Your task to perform on an android device: Open calendar and show me the first week of next month Image 0: 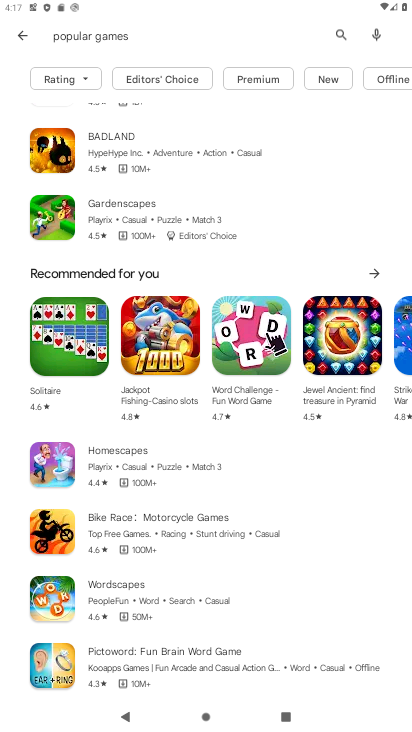
Step 0: press home button
Your task to perform on an android device: Open calendar and show me the first week of next month Image 1: 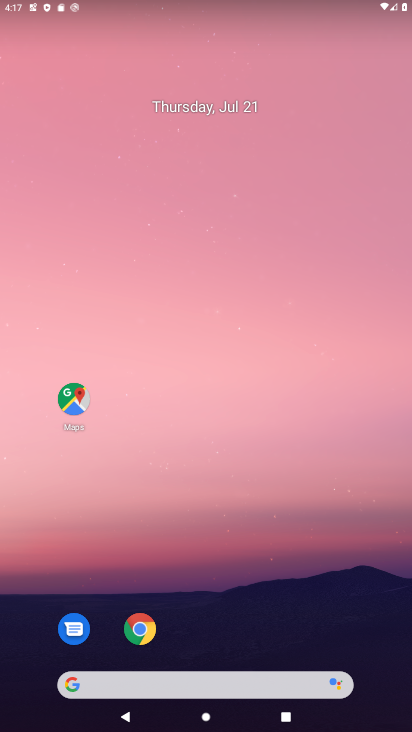
Step 1: drag from (242, 598) to (266, 58)
Your task to perform on an android device: Open calendar and show me the first week of next month Image 2: 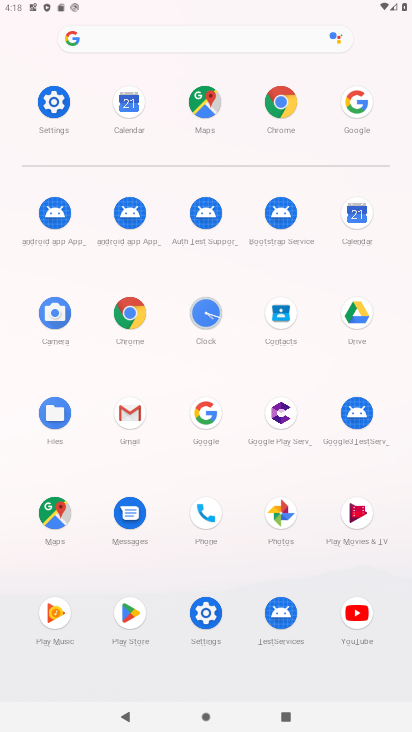
Step 2: click (356, 218)
Your task to perform on an android device: Open calendar and show me the first week of next month Image 3: 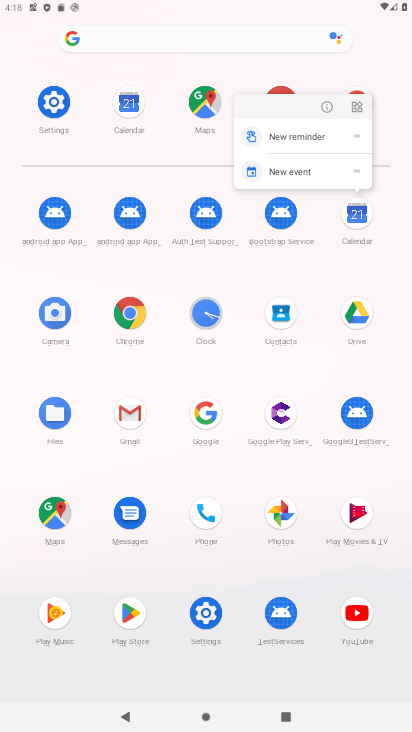
Step 3: click (356, 217)
Your task to perform on an android device: Open calendar and show me the first week of next month Image 4: 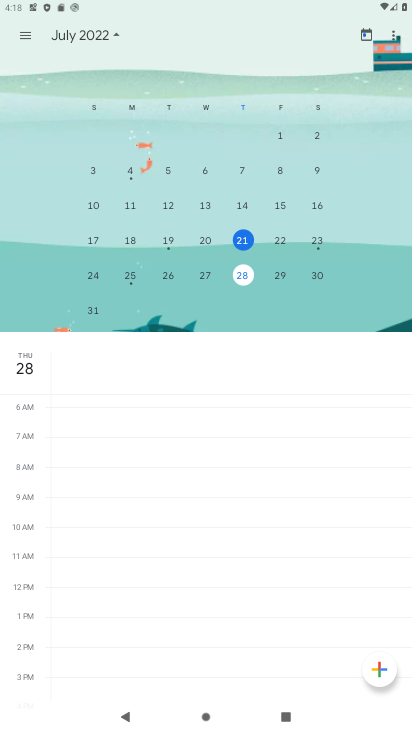
Step 4: drag from (321, 220) to (2, 125)
Your task to perform on an android device: Open calendar and show me the first week of next month Image 5: 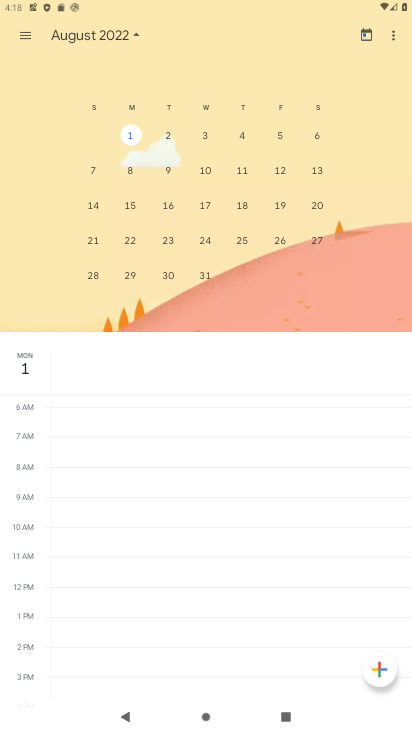
Step 5: click (313, 138)
Your task to perform on an android device: Open calendar and show me the first week of next month Image 6: 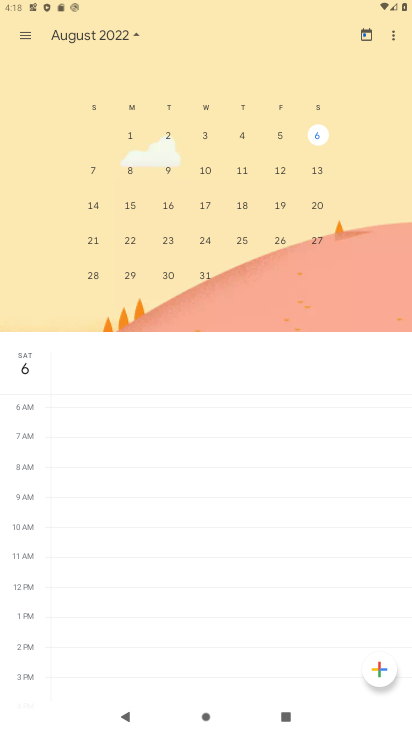
Step 6: task complete